Your task to perform on an android device: turn notification dots off Image 0: 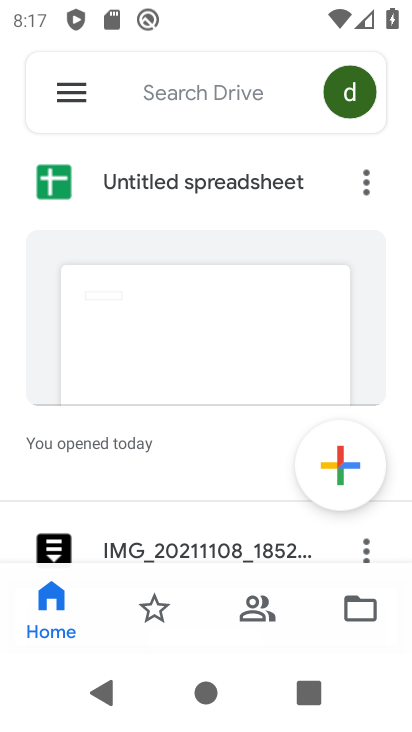
Step 0: press home button
Your task to perform on an android device: turn notification dots off Image 1: 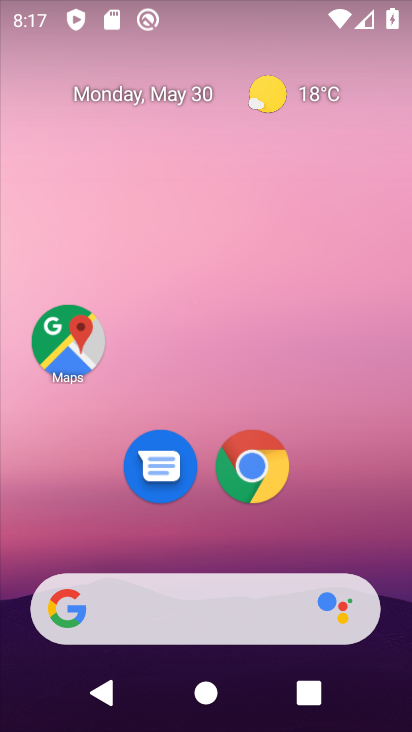
Step 1: drag from (330, 518) to (311, 76)
Your task to perform on an android device: turn notification dots off Image 2: 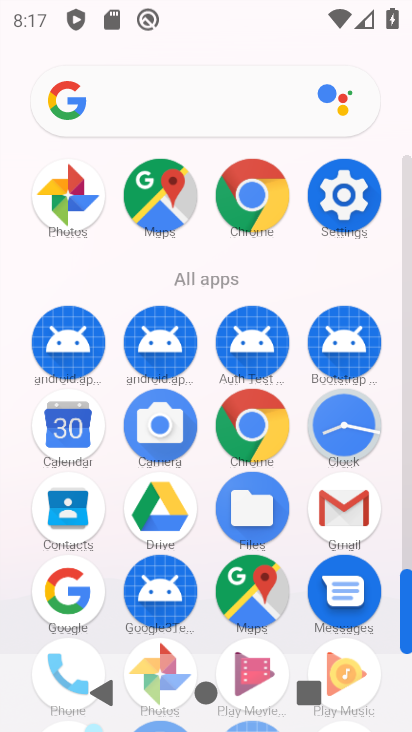
Step 2: click (334, 196)
Your task to perform on an android device: turn notification dots off Image 3: 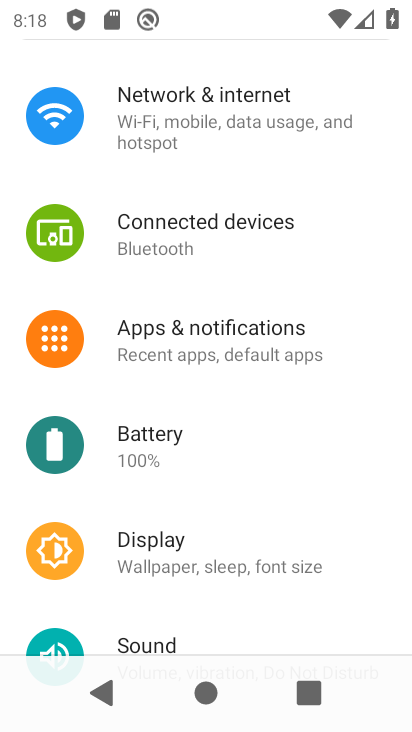
Step 3: click (273, 335)
Your task to perform on an android device: turn notification dots off Image 4: 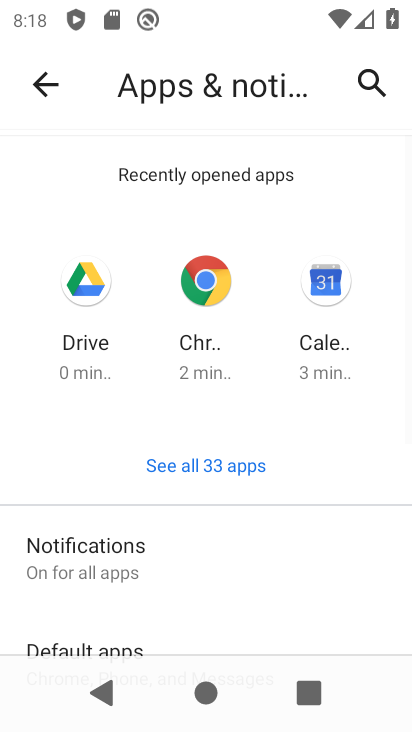
Step 4: click (142, 547)
Your task to perform on an android device: turn notification dots off Image 5: 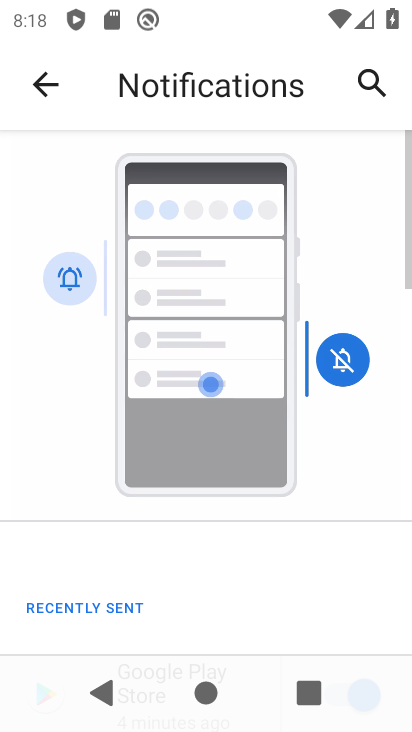
Step 5: drag from (191, 618) to (262, 111)
Your task to perform on an android device: turn notification dots off Image 6: 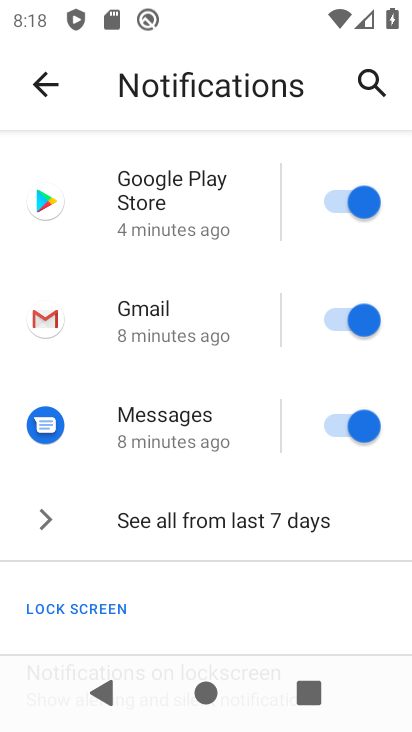
Step 6: drag from (239, 505) to (300, 76)
Your task to perform on an android device: turn notification dots off Image 7: 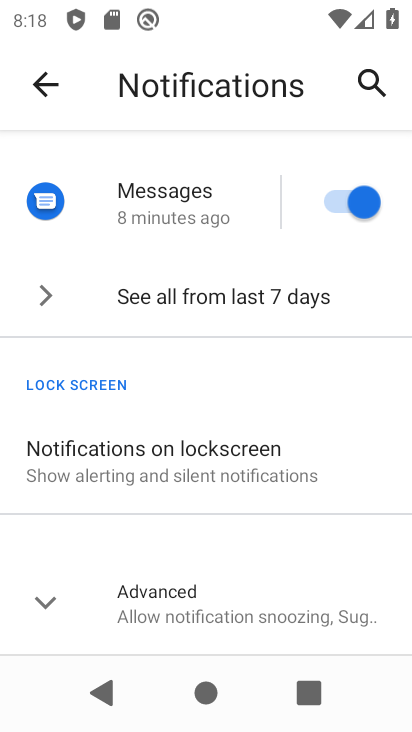
Step 7: click (211, 613)
Your task to perform on an android device: turn notification dots off Image 8: 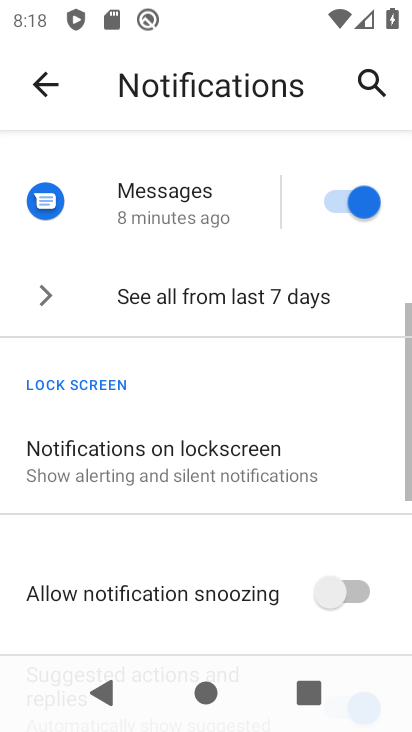
Step 8: drag from (216, 599) to (267, 171)
Your task to perform on an android device: turn notification dots off Image 9: 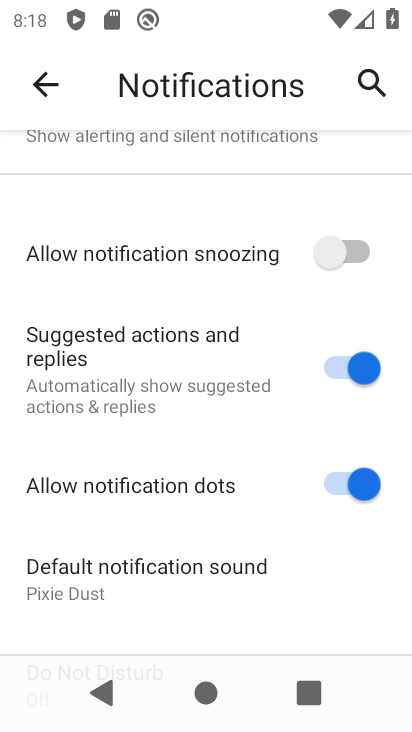
Step 9: click (364, 476)
Your task to perform on an android device: turn notification dots off Image 10: 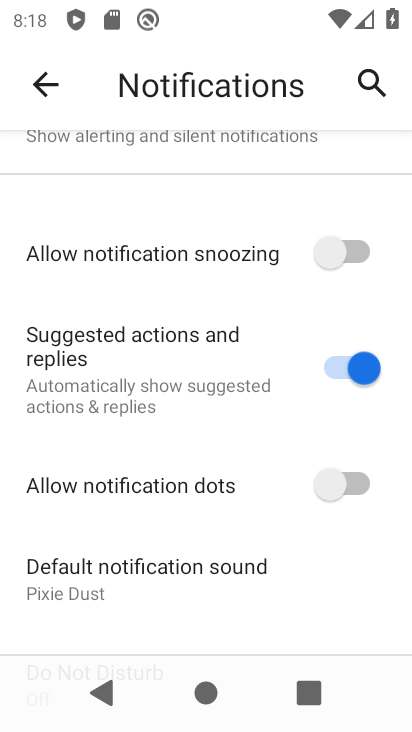
Step 10: task complete